Your task to perform on an android device: Open notification settings Image 0: 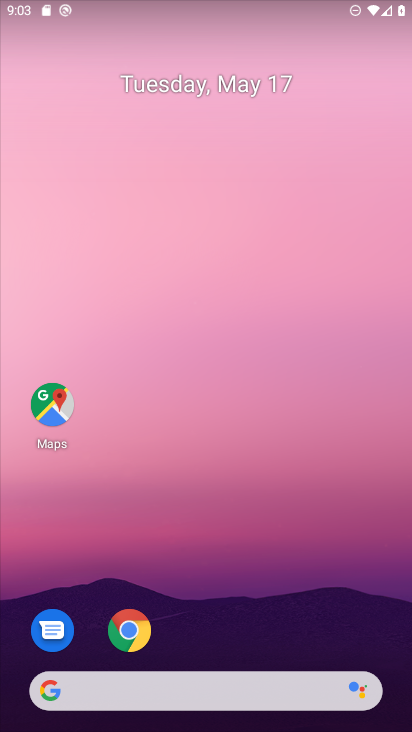
Step 0: drag from (358, 632) to (376, 120)
Your task to perform on an android device: Open notification settings Image 1: 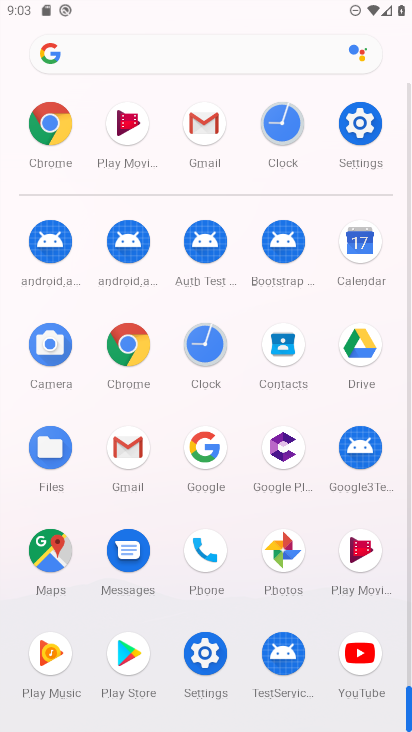
Step 1: click (365, 127)
Your task to perform on an android device: Open notification settings Image 2: 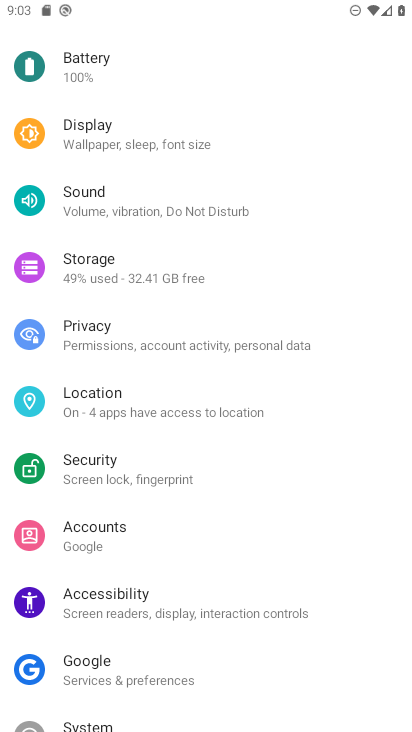
Step 2: drag from (349, 564) to (350, 430)
Your task to perform on an android device: Open notification settings Image 3: 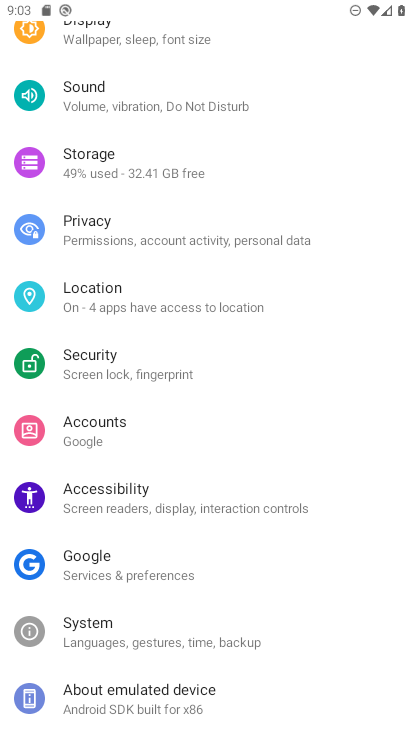
Step 3: drag from (335, 641) to (335, 480)
Your task to perform on an android device: Open notification settings Image 4: 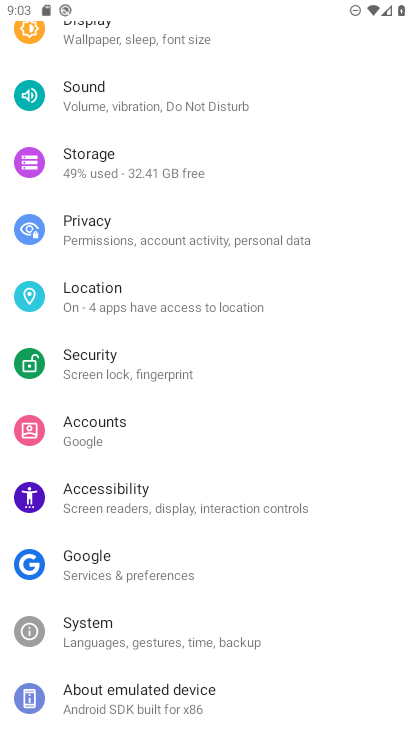
Step 4: drag from (345, 314) to (336, 417)
Your task to perform on an android device: Open notification settings Image 5: 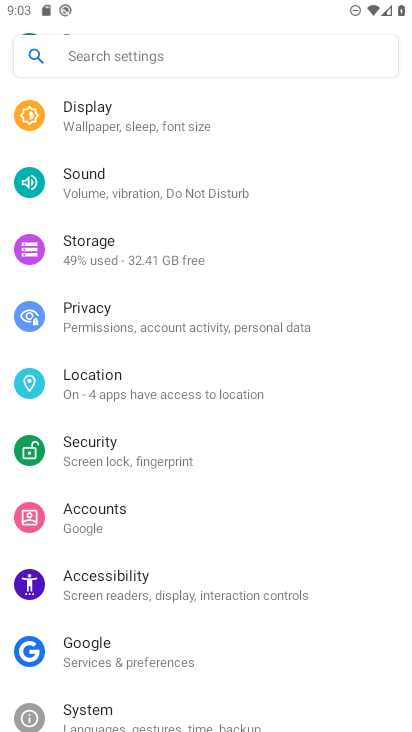
Step 5: drag from (352, 266) to (351, 369)
Your task to perform on an android device: Open notification settings Image 6: 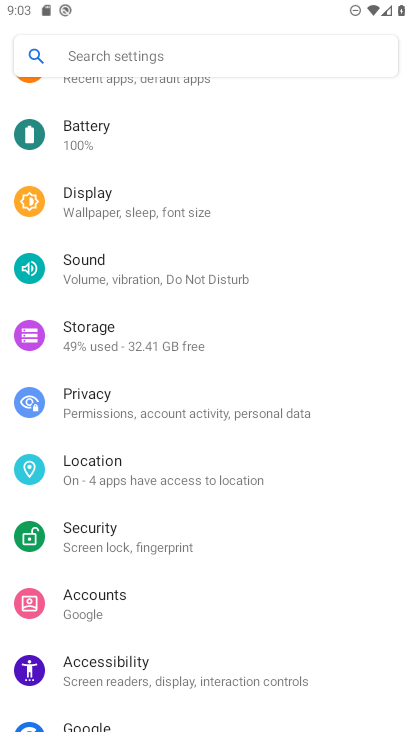
Step 6: drag from (331, 226) to (321, 363)
Your task to perform on an android device: Open notification settings Image 7: 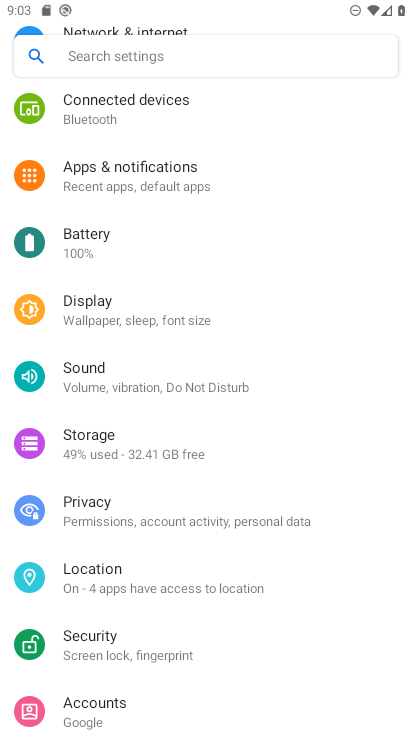
Step 7: drag from (327, 212) to (330, 322)
Your task to perform on an android device: Open notification settings Image 8: 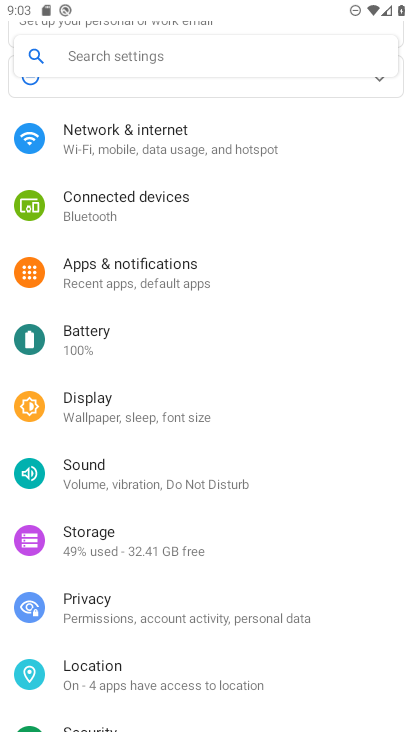
Step 8: drag from (329, 269) to (316, 344)
Your task to perform on an android device: Open notification settings Image 9: 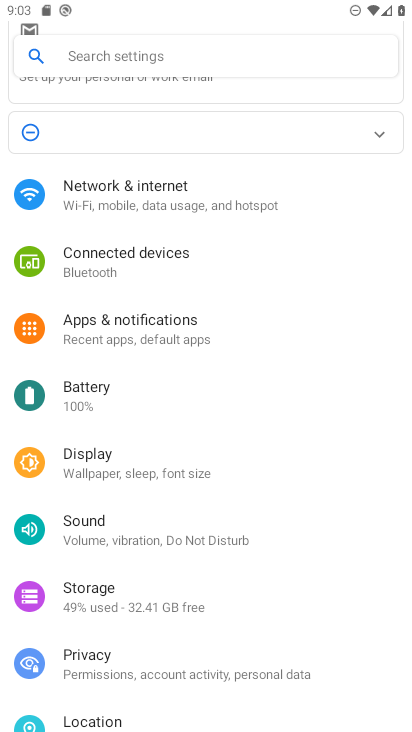
Step 9: click (292, 348)
Your task to perform on an android device: Open notification settings Image 10: 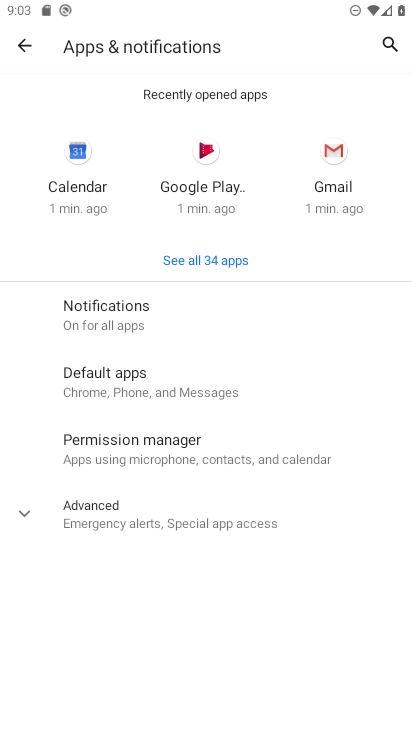
Step 10: click (118, 324)
Your task to perform on an android device: Open notification settings Image 11: 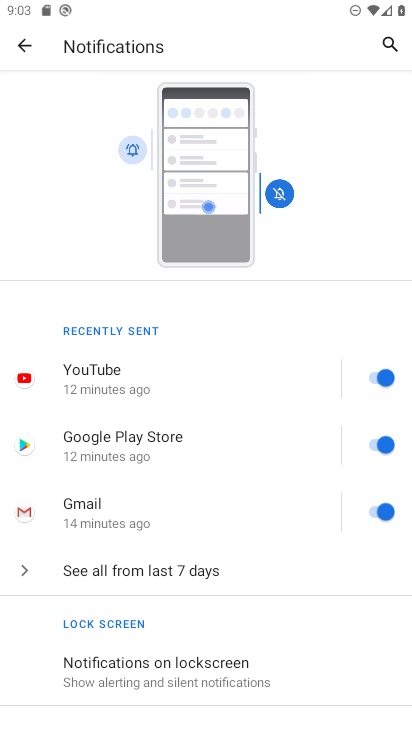
Step 11: task complete